Your task to perform on an android device: set the timer Image 0: 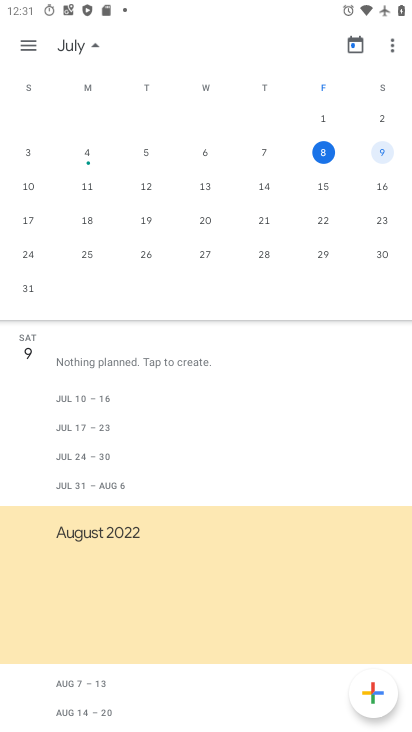
Step 0: press home button
Your task to perform on an android device: set the timer Image 1: 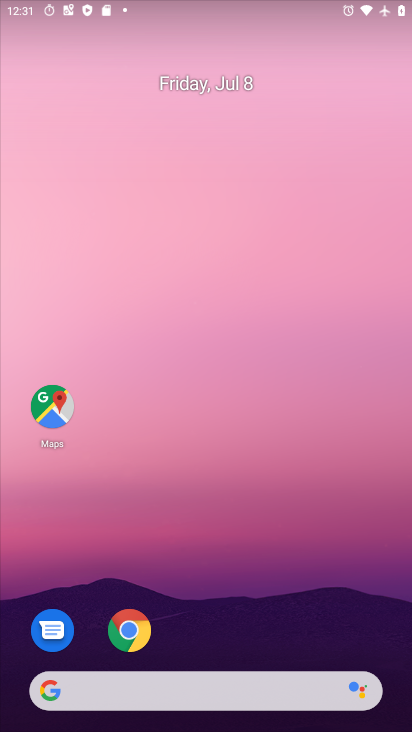
Step 1: drag from (217, 463) to (247, 125)
Your task to perform on an android device: set the timer Image 2: 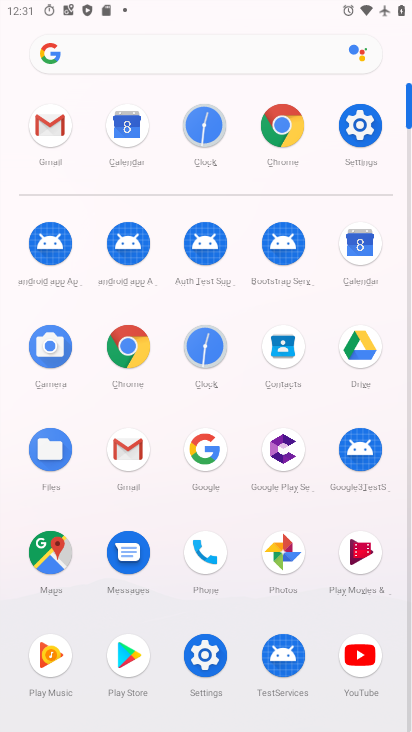
Step 2: click (196, 130)
Your task to perform on an android device: set the timer Image 3: 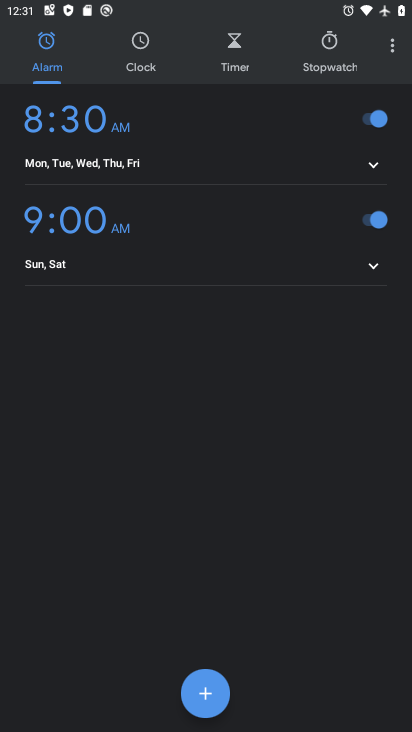
Step 3: click (232, 58)
Your task to perform on an android device: set the timer Image 4: 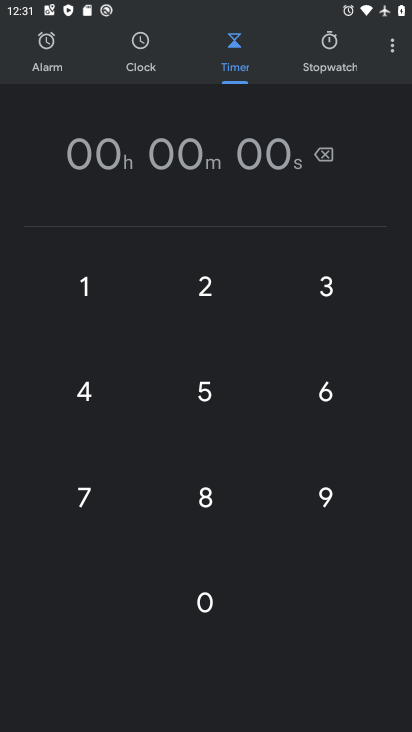
Step 4: click (275, 158)
Your task to perform on an android device: set the timer Image 5: 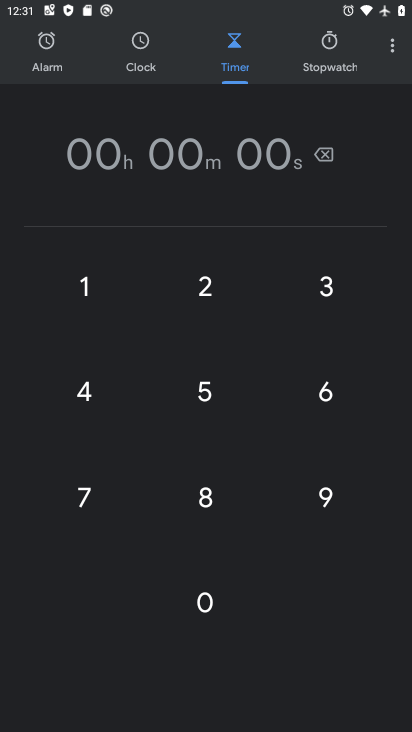
Step 5: type "12"
Your task to perform on an android device: set the timer Image 6: 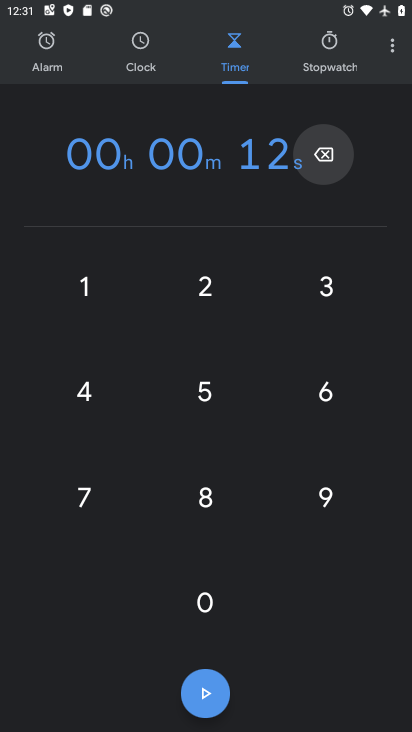
Step 6: click (206, 698)
Your task to perform on an android device: set the timer Image 7: 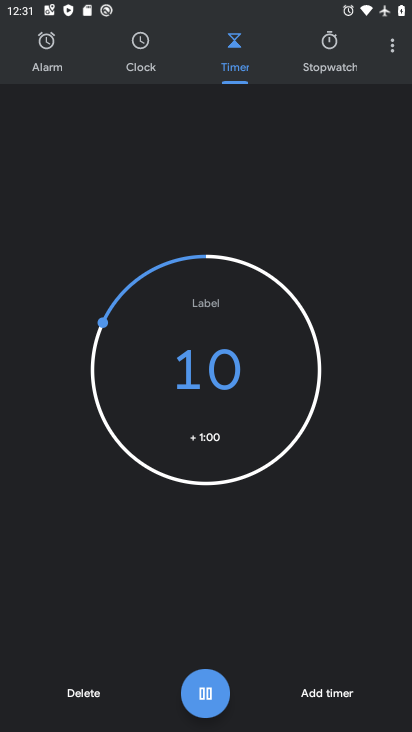
Step 7: task complete